Your task to perform on an android device: Go to network settings Image 0: 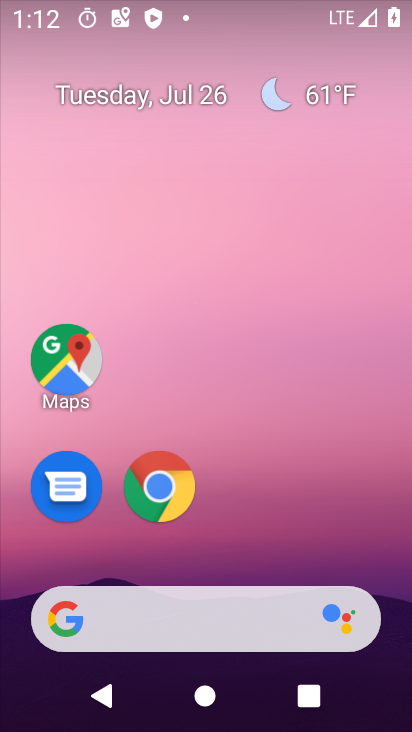
Step 0: press home button
Your task to perform on an android device: Go to network settings Image 1: 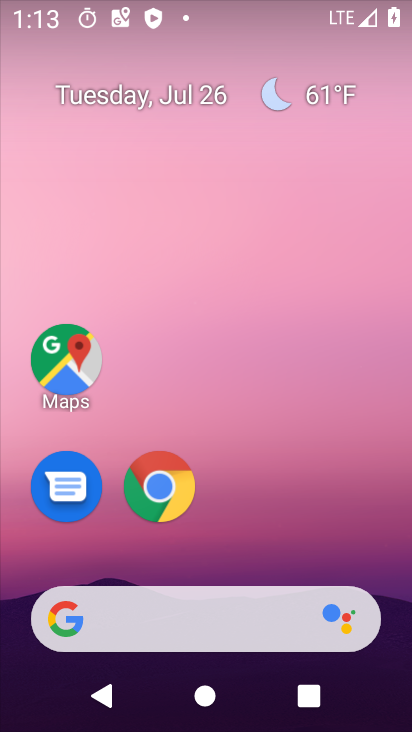
Step 1: drag from (317, 536) to (311, 104)
Your task to perform on an android device: Go to network settings Image 2: 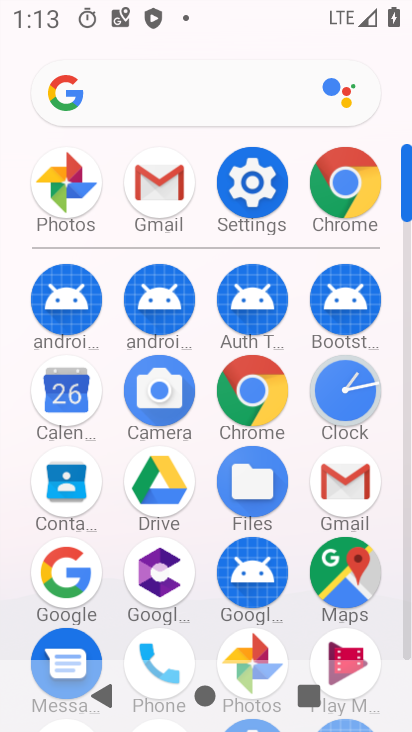
Step 2: click (259, 187)
Your task to perform on an android device: Go to network settings Image 3: 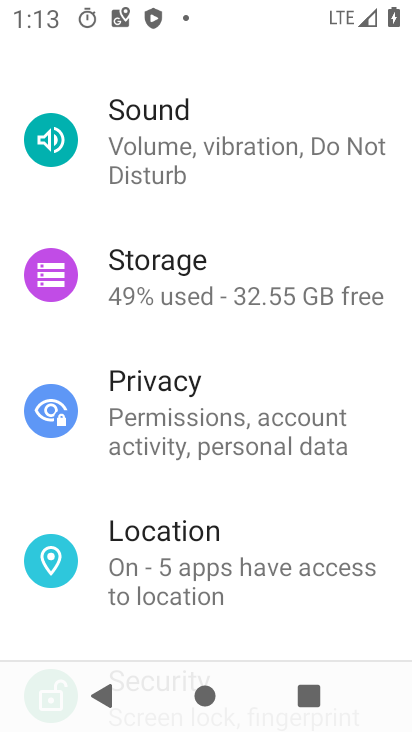
Step 3: drag from (354, 516) to (353, 357)
Your task to perform on an android device: Go to network settings Image 4: 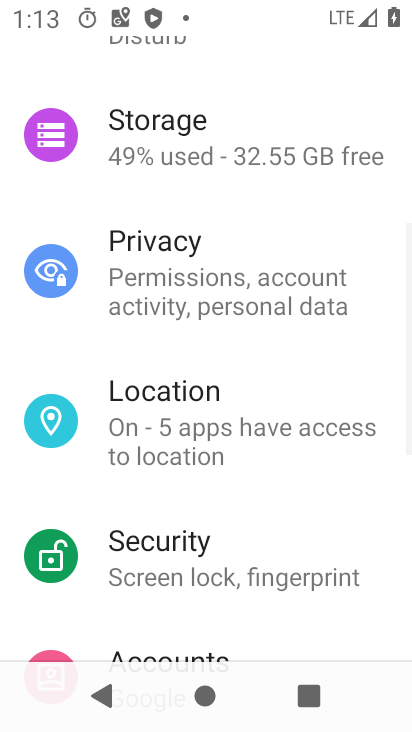
Step 4: drag from (351, 490) to (355, 358)
Your task to perform on an android device: Go to network settings Image 5: 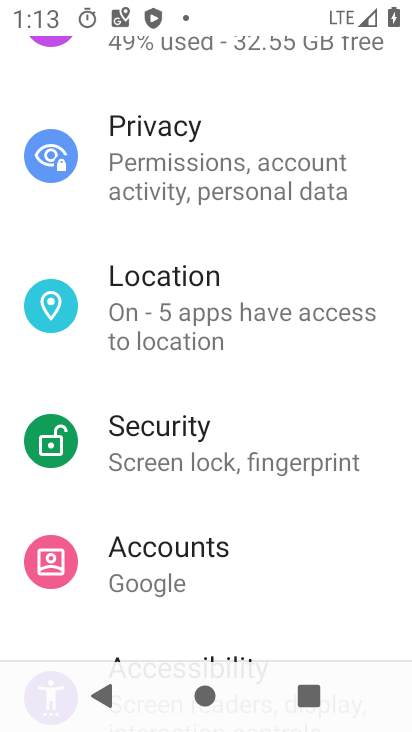
Step 5: drag from (344, 516) to (348, 374)
Your task to perform on an android device: Go to network settings Image 6: 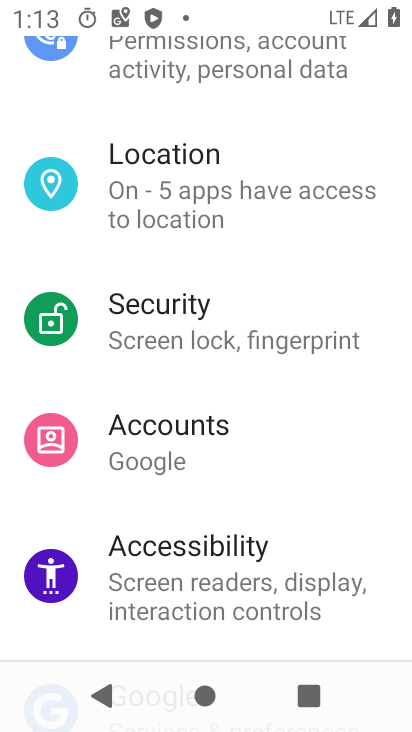
Step 6: drag from (353, 536) to (355, 388)
Your task to perform on an android device: Go to network settings Image 7: 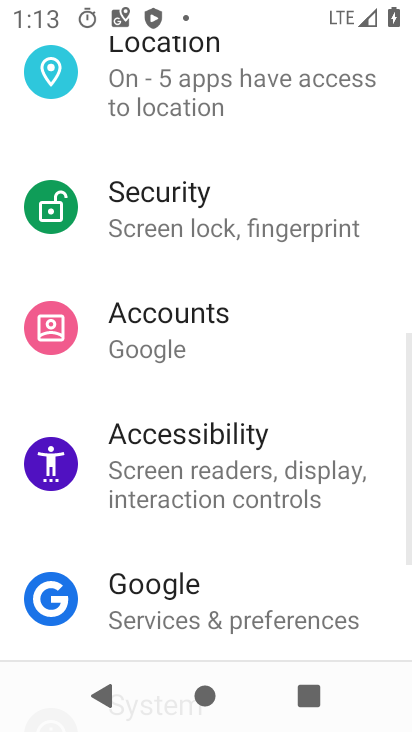
Step 7: drag from (338, 317) to (332, 441)
Your task to perform on an android device: Go to network settings Image 8: 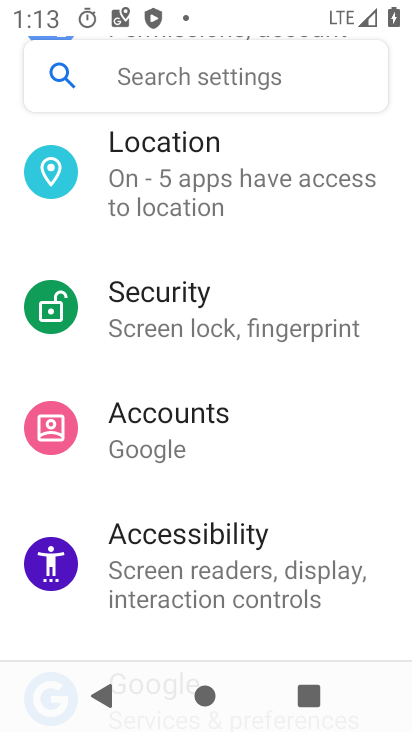
Step 8: drag from (317, 284) to (326, 437)
Your task to perform on an android device: Go to network settings Image 9: 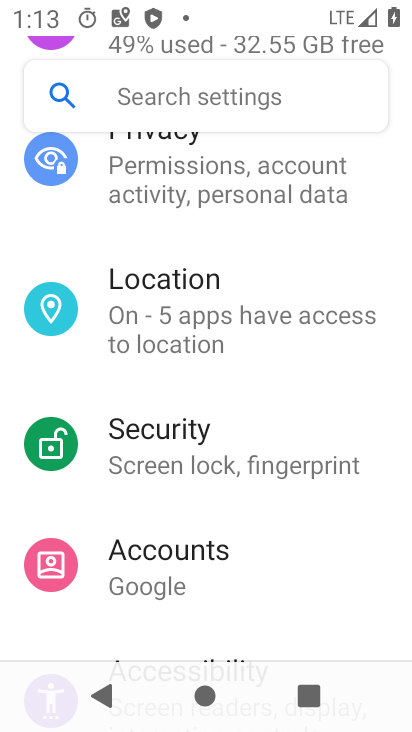
Step 9: drag from (336, 276) to (344, 430)
Your task to perform on an android device: Go to network settings Image 10: 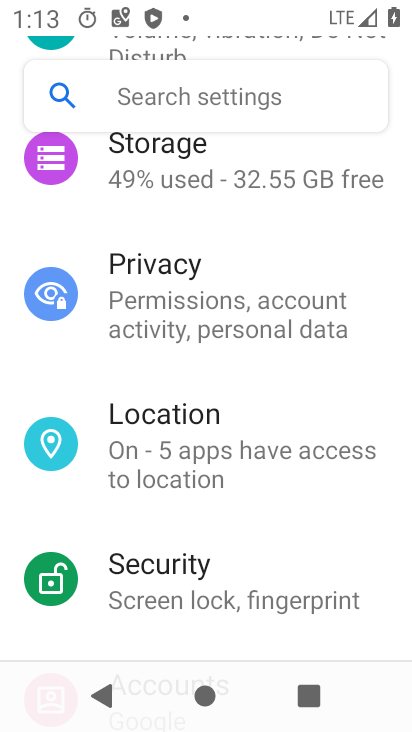
Step 10: drag from (343, 233) to (350, 366)
Your task to perform on an android device: Go to network settings Image 11: 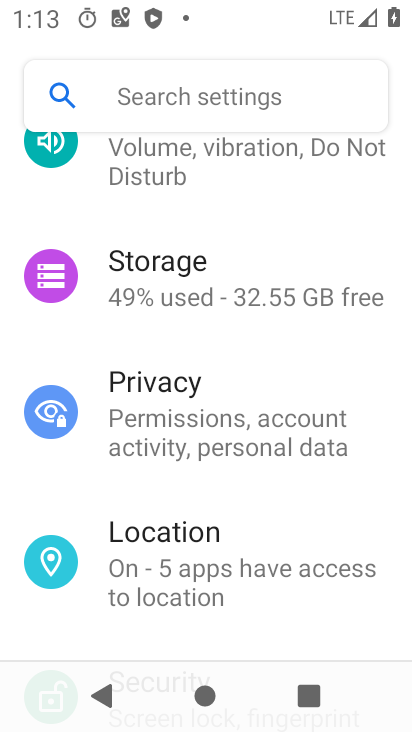
Step 11: drag from (332, 236) to (339, 360)
Your task to perform on an android device: Go to network settings Image 12: 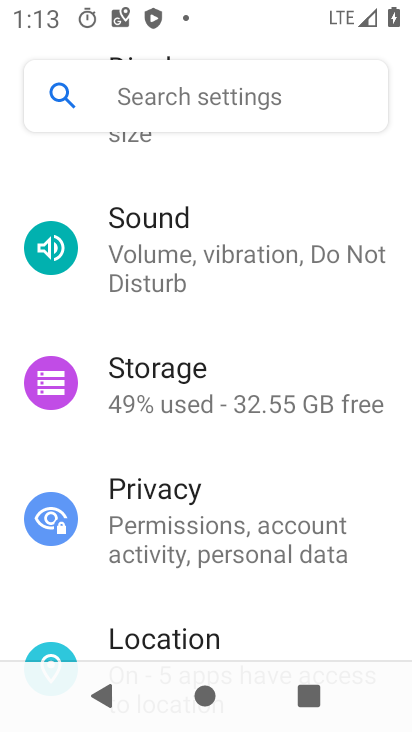
Step 12: drag from (322, 202) to (329, 319)
Your task to perform on an android device: Go to network settings Image 13: 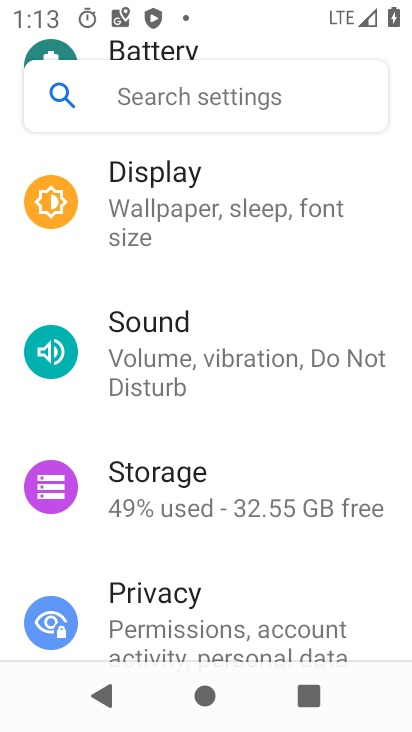
Step 13: drag from (349, 245) to (359, 350)
Your task to perform on an android device: Go to network settings Image 14: 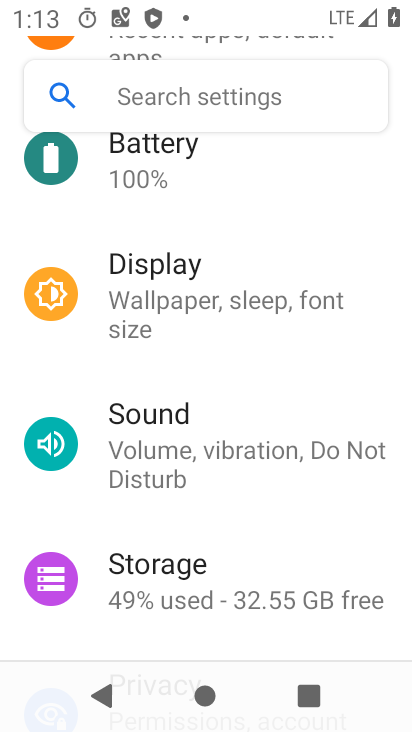
Step 14: drag from (349, 259) to (371, 411)
Your task to perform on an android device: Go to network settings Image 15: 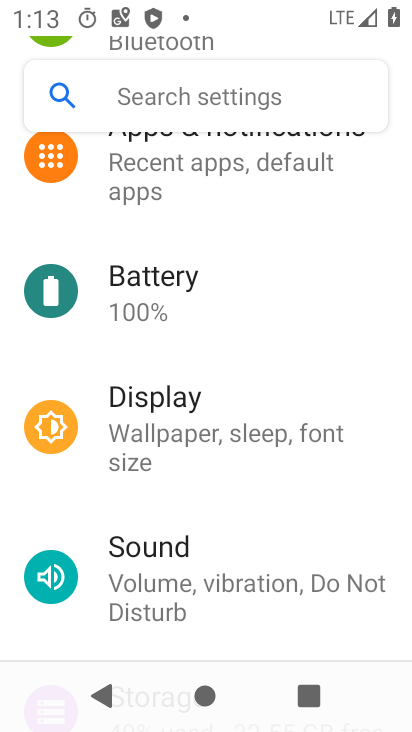
Step 15: drag from (348, 253) to (365, 391)
Your task to perform on an android device: Go to network settings Image 16: 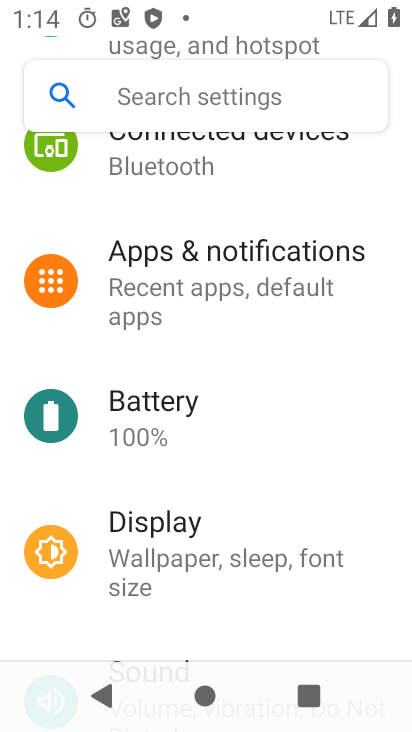
Step 16: drag from (348, 222) to (357, 369)
Your task to perform on an android device: Go to network settings Image 17: 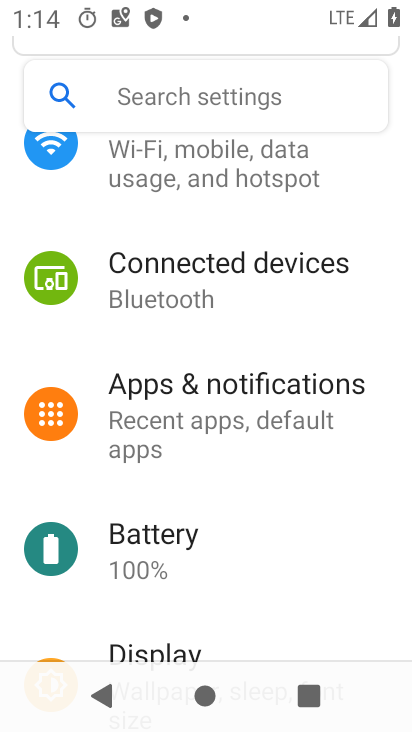
Step 17: drag from (347, 220) to (352, 349)
Your task to perform on an android device: Go to network settings Image 18: 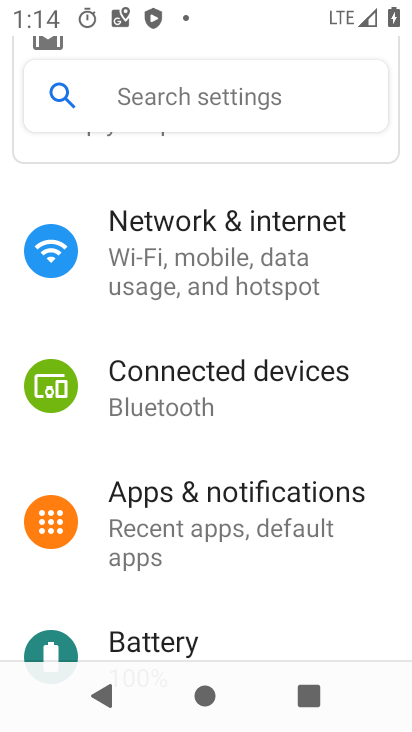
Step 18: drag from (358, 222) to (365, 342)
Your task to perform on an android device: Go to network settings Image 19: 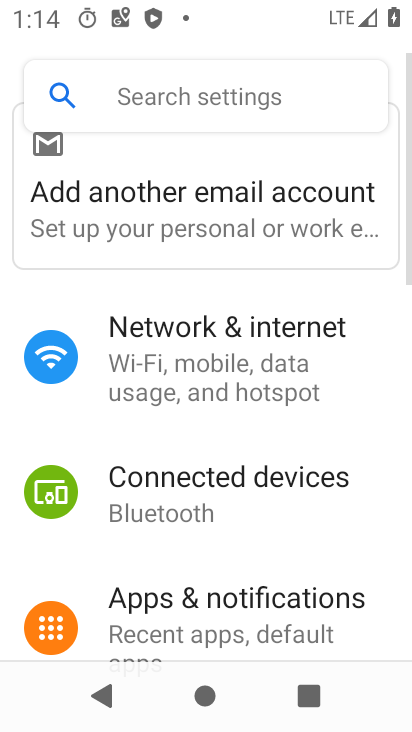
Step 19: click (297, 340)
Your task to perform on an android device: Go to network settings Image 20: 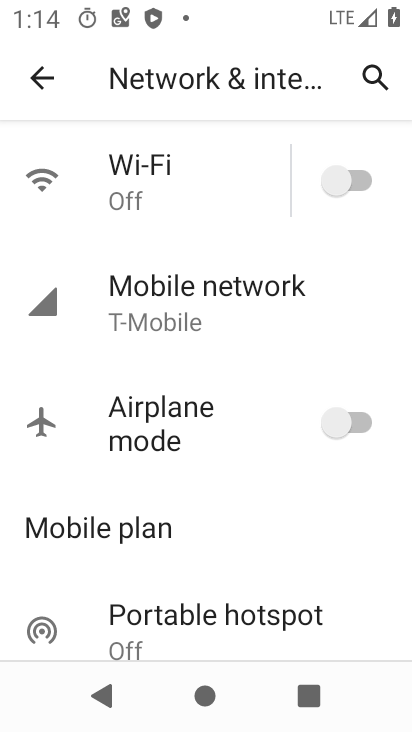
Step 20: task complete